Your task to perform on an android device: turn on notifications settings in the gmail app Image 0: 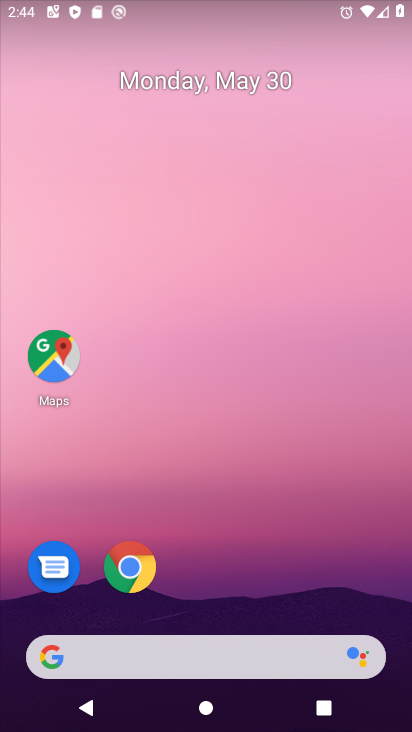
Step 0: drag from (253, 592) to (355, 0)
Your task to perform on an android device: turn on notifications settings in the gmail app Image 1: 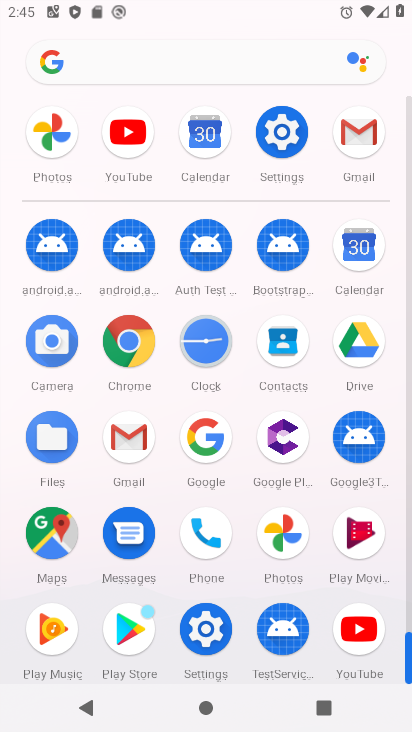
Step 1: click (122, 445)
Your task to perform on an android device: turn on notifications settings in the gmail app Image 2: 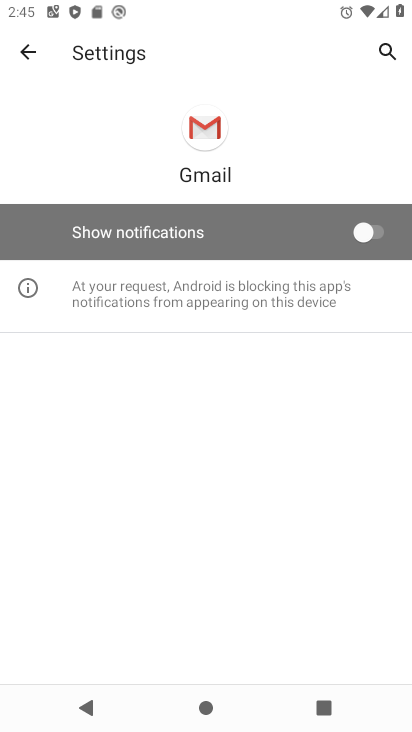
Step 2: click (388, 241)
Your task to perform on an android device: turn on notifications settings in the gmail app Image 3: 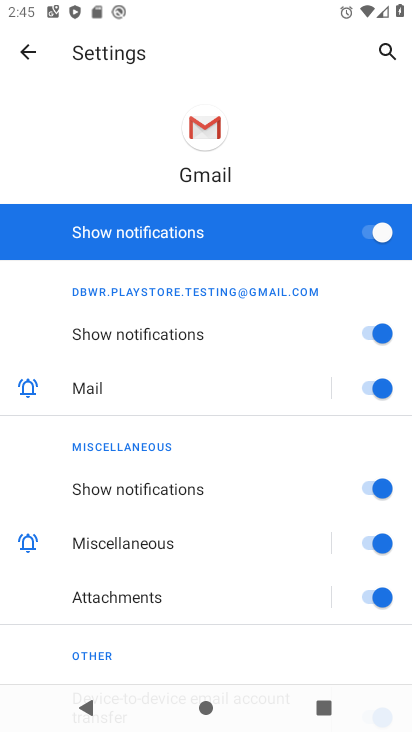
Step 3: task complete